Your task to perform on an android device: turn on airplane mode Image 0: 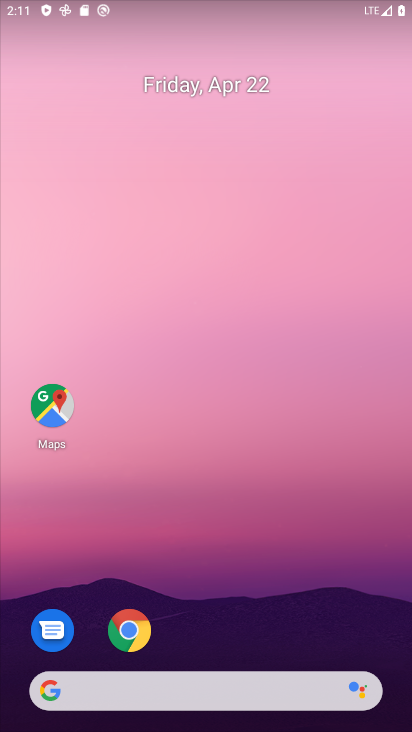
Step 0: drag from (362, 646) to (357, 182)
Your task to perform on an android device: turn on airplane mode Image 1: 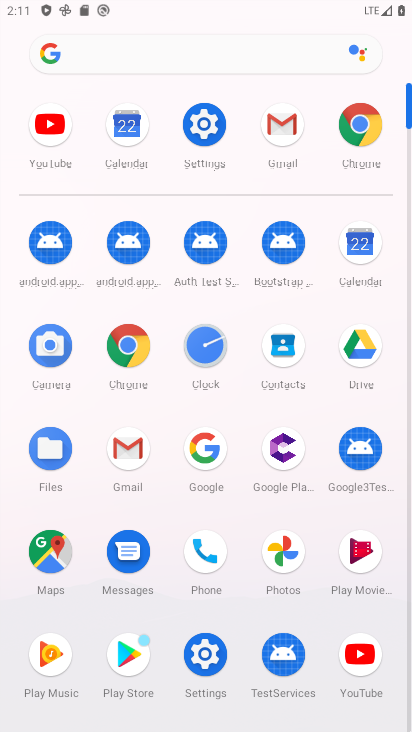
Step 1: click (188, 122)
Your task to perform on an android device: turn on airplane mode Image 2: 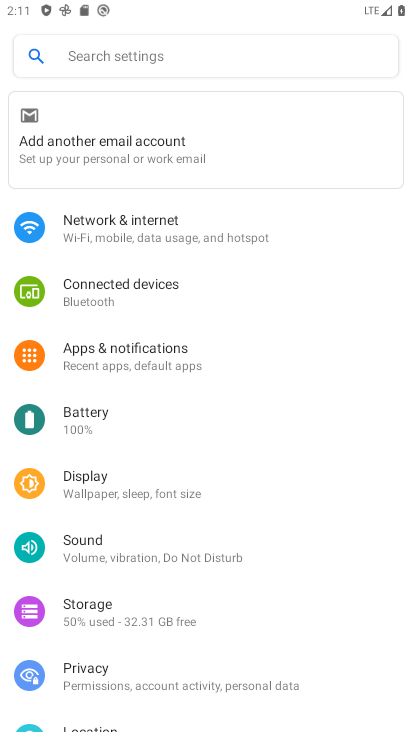
Step 2: click (177, 239)
Your task to perform on an android device: turn on airplane mode Image 3: 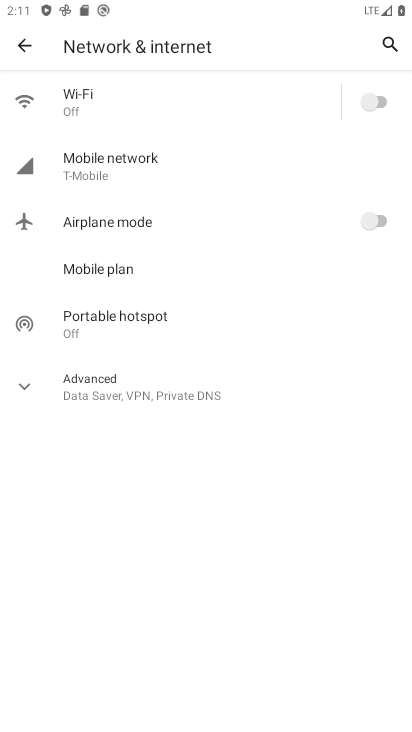
Step 3: click (386, 225)
Your task to perform on an android device: turn on airplane mode Image 4: 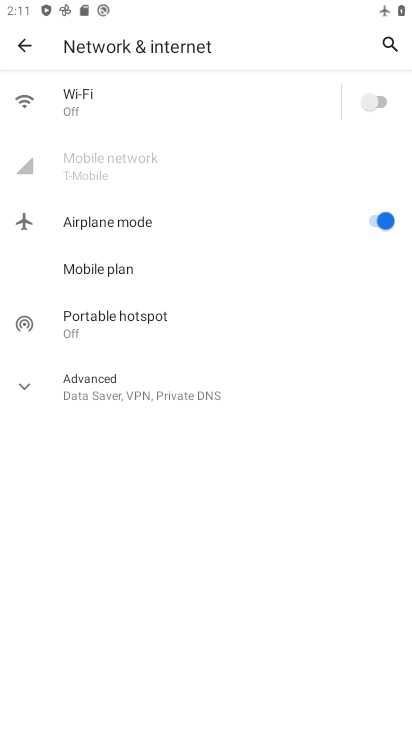
Step 4: task complete